Your task to perform on an android device: Open display settings Image 0: 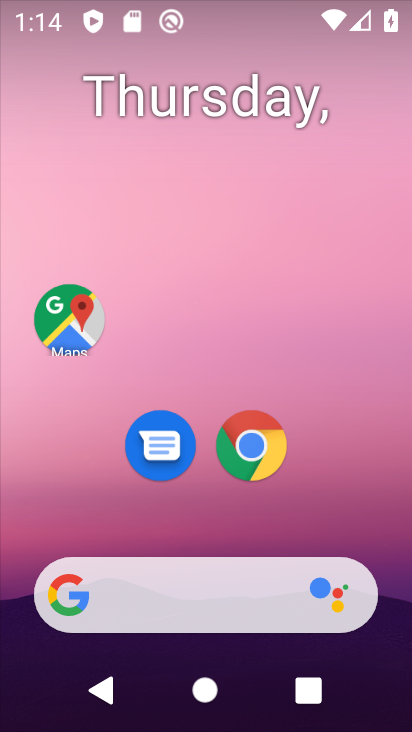
Step 0: press home button
Your task to perform on an android device: Open display settings Image 1: 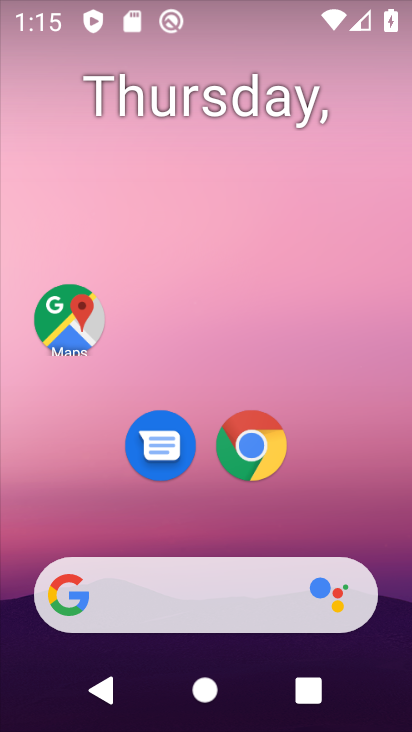
Step 1: drag from (7, 654) to (400, 67)
Your task to perform on an android device: Open display settings Image 2: 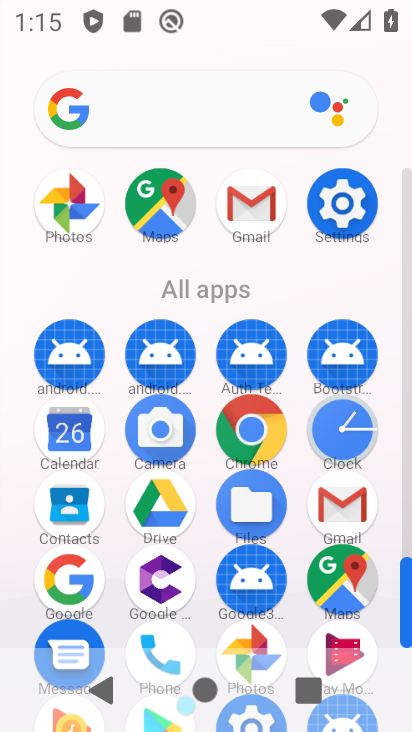
Step 2: click (358, 207)
Your task to perform on an android device: Open display settings Image 3: 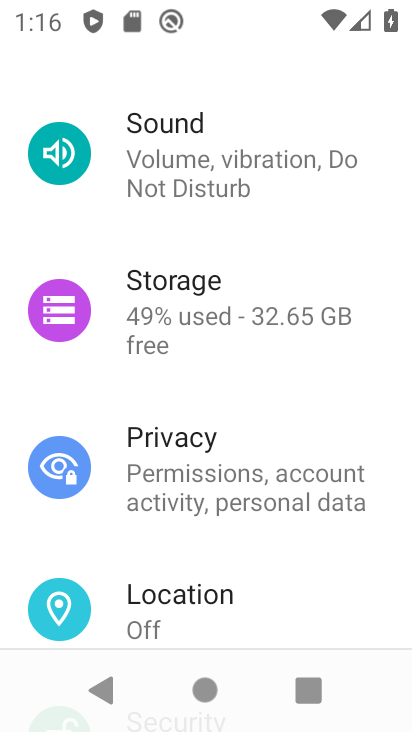
Step 3: drag from (11, 460) to (206, 143)
Your task to perform on an android device: Open display settings Image 4: 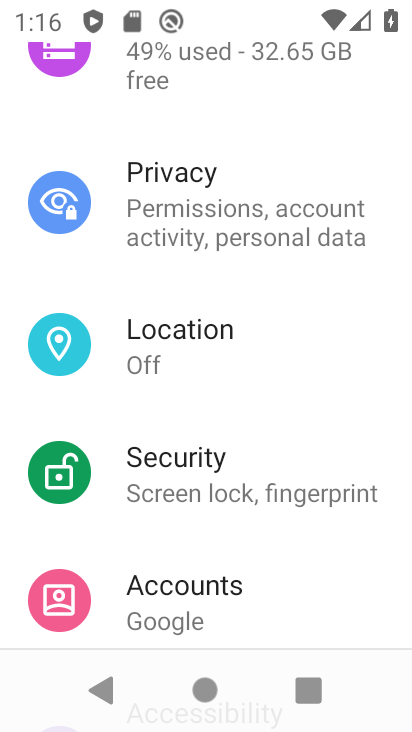
Step 4: drag from (191, 191) to (140, 682)
Your task to perform on an android device: Open display settings Image 5: 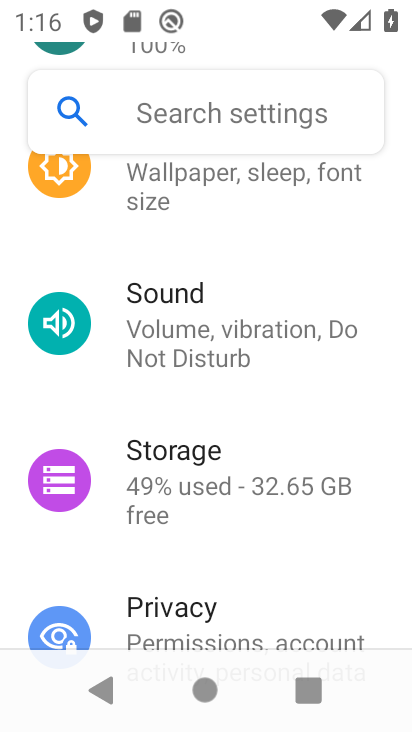
Step 5: drag from (199, 602) to (302, 178)
Your task to perform on an android device: Open display settings Image 6: 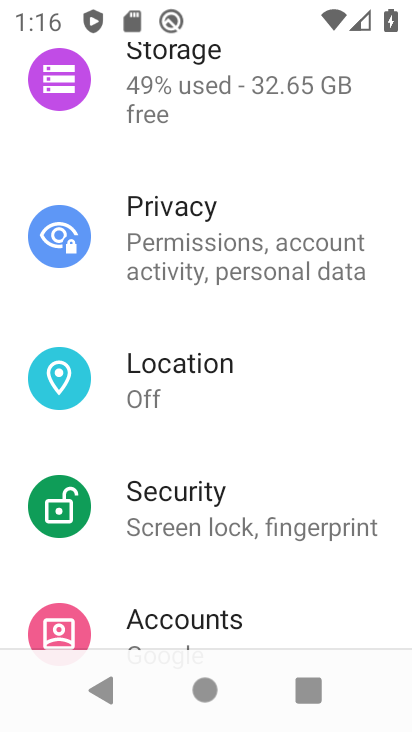
Step 6: drag from (122, 627) to (252, 209)
Your task to perform on an android device: Open display settings Image 7: 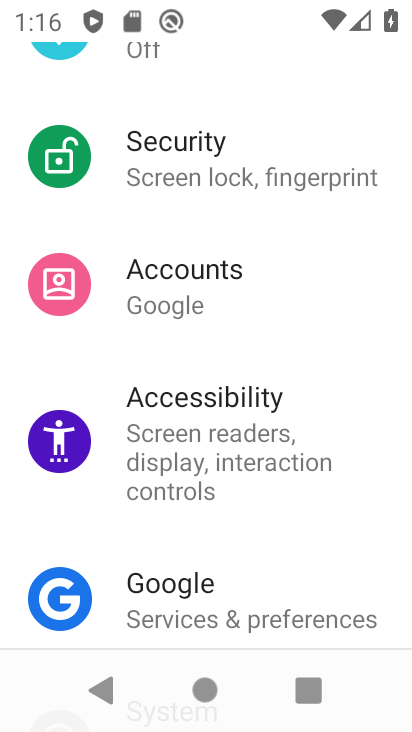
Step 7: drag from (213, 190) to (205, 724)
Your task to perform on an android device: Open display settings Image 8: 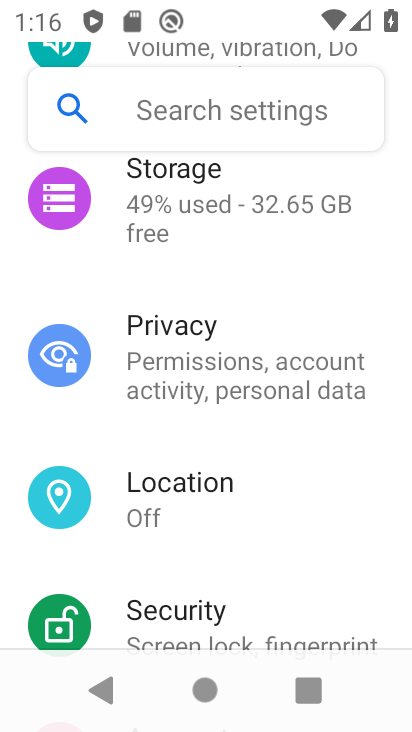
Step 8: drag from (165, 214) to (203, 600)
Your task to perform on an android device: Open display settings Image 9: 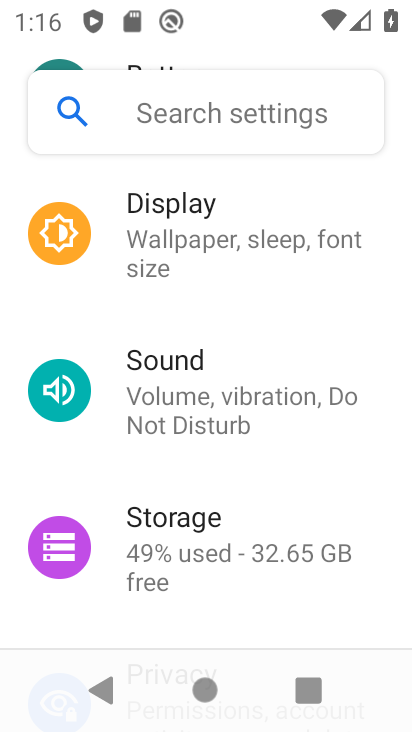
Step 9: drag from (161, 210) to (209, 569)
Your task to perform on an android device: Open display settings Image 10: 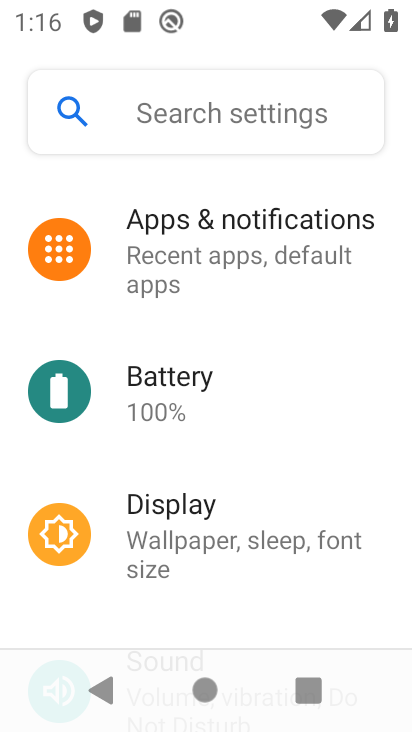
Step 10: click (187, 546)
Your task to perform on an android device: Open display settings Image 11: 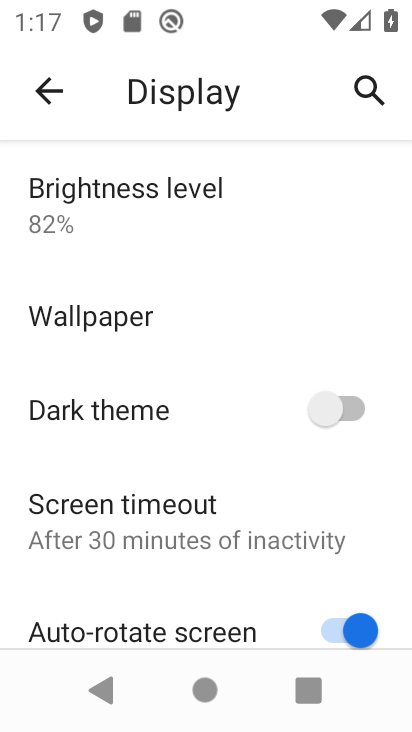
Step 11: task complete